Your task to perform on an android device: change the upload size in google photos Image 0: 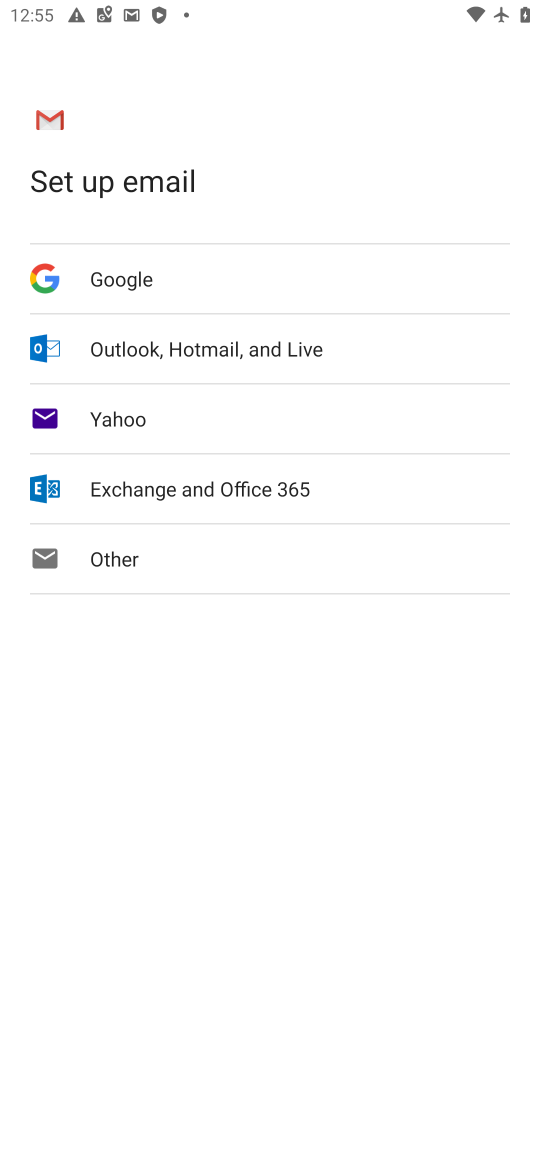
Step 0: press home button
Your task to perform on an android device: change the upload size in google photos Image 1: 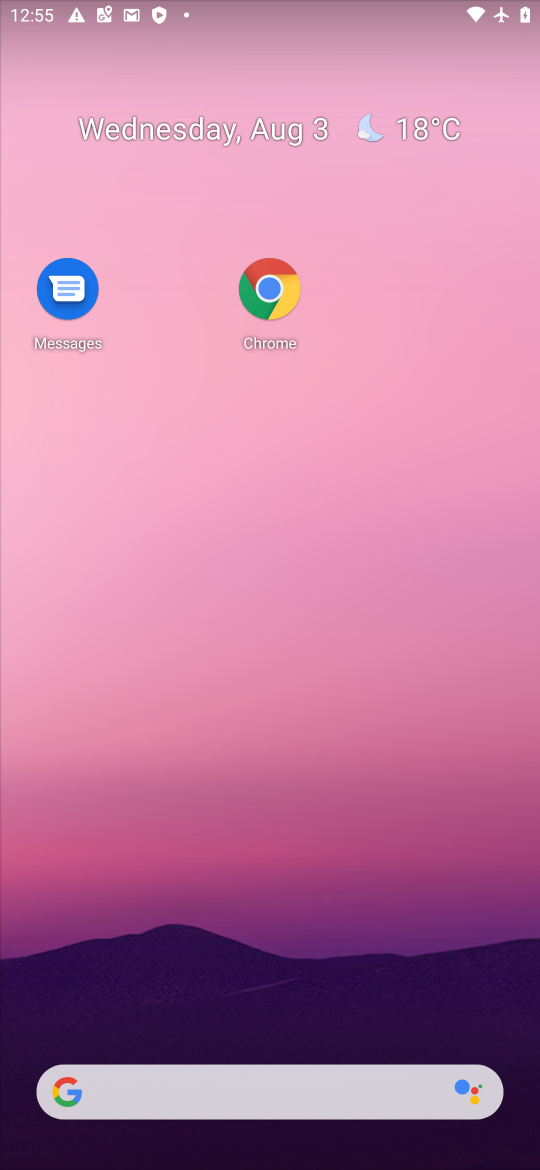
Step 1: drag from (357, 1042) to (167, 115)
Your task to perform on an android device: change the upload size in google photos Image 2: 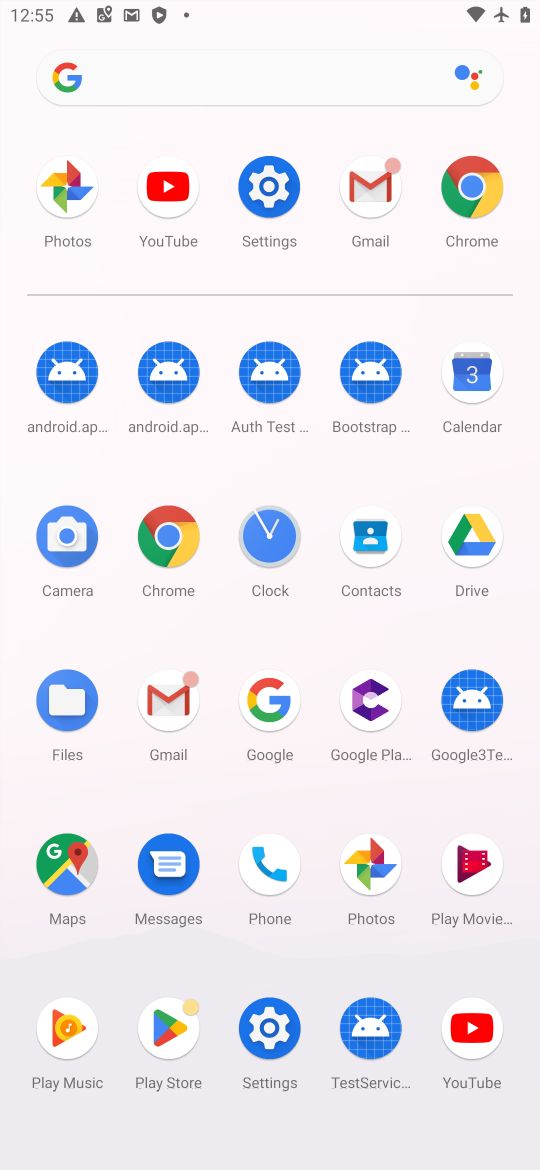
Step 2: click (382, 875)
Your task to perform on an android device: change the upload size in google photos Image 3: 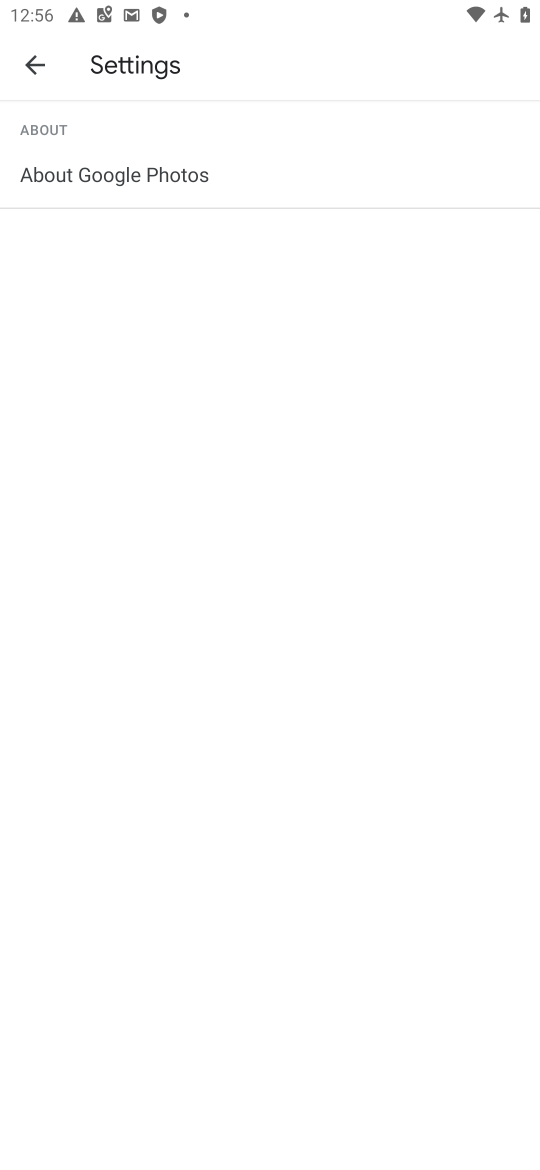
Step 3: task complete